Your task to perform on an android device: Do I have any events today? Image 0: 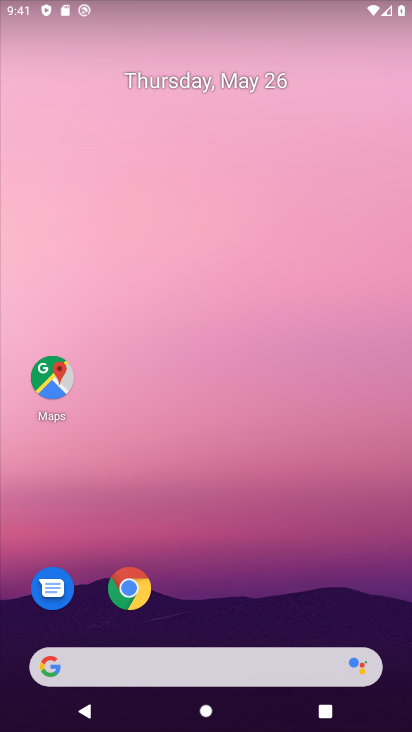
Step 0: drag from (238, 730) to (220, 22)
Your task to perform on an android device: Do I have any events today? Image 1: 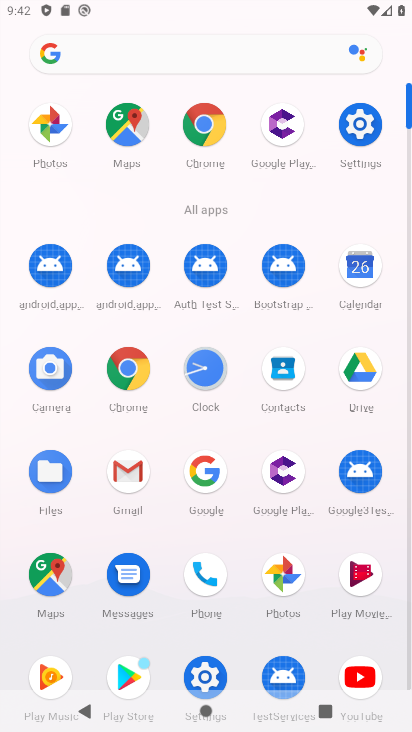
Step 1: click (357, 265)
Your task to perform on an android device: Do I have any events today? Image 2: 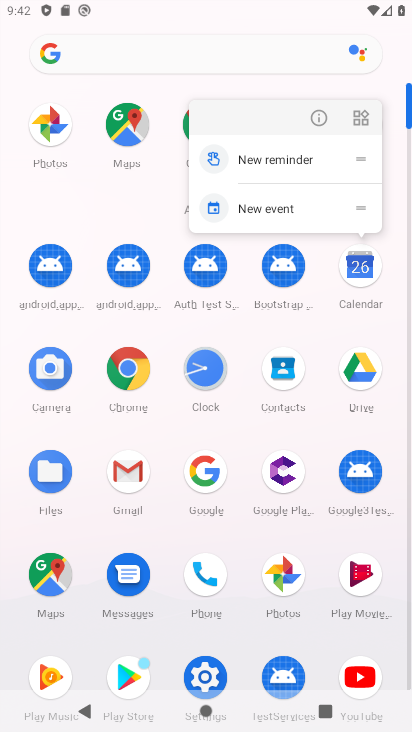
Step 2: click (359, 273)
Your task to perform on an android device: Do I have any events today? Image 3: 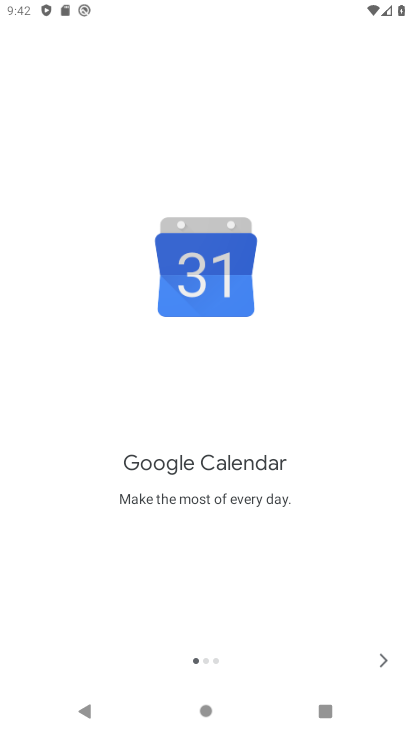
Step 3: click (382, 657)
Your task to perform on an android device: Do I have any events today? Image 4: 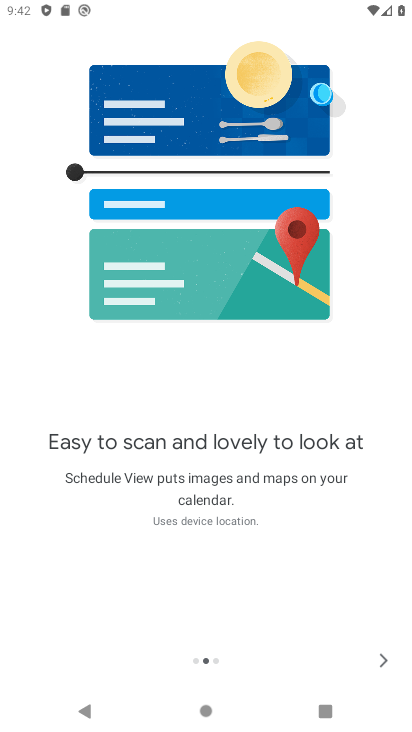
Step 4: click (383, 659)
Your task to perform on an android device: Do I have any events today? Image 5: 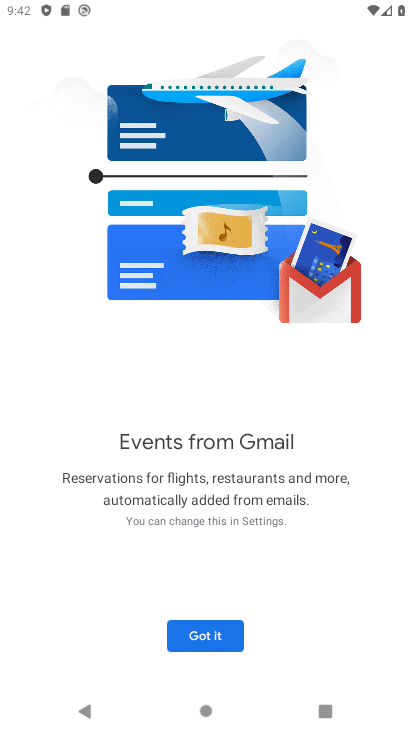
Step 5: click (205, 634)
Your task to perform on an android device: Do I have any events today? Image 6: 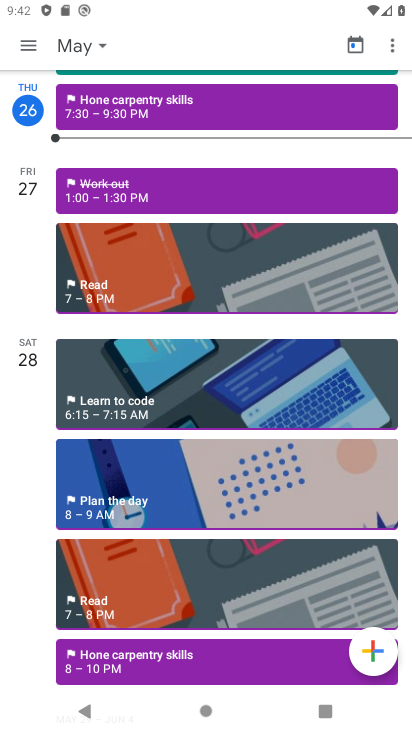
Step 6: click (35, 46)
Your task to perform on an android device: Do I have any events today? Image 7: 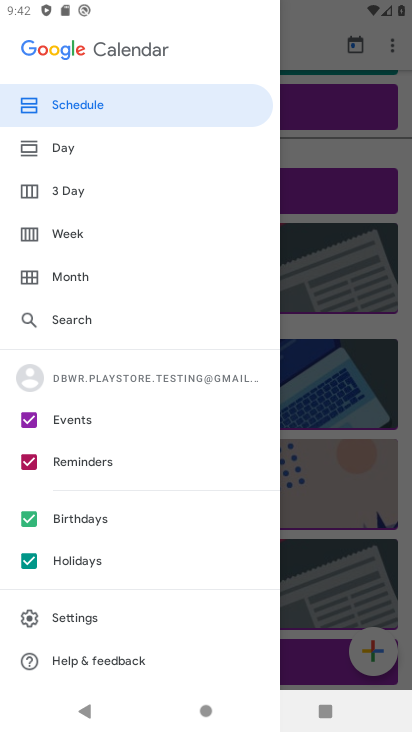
Step 7: click (24, 554)
Your task to perform on an android device: Do I have any events today? Image 8: 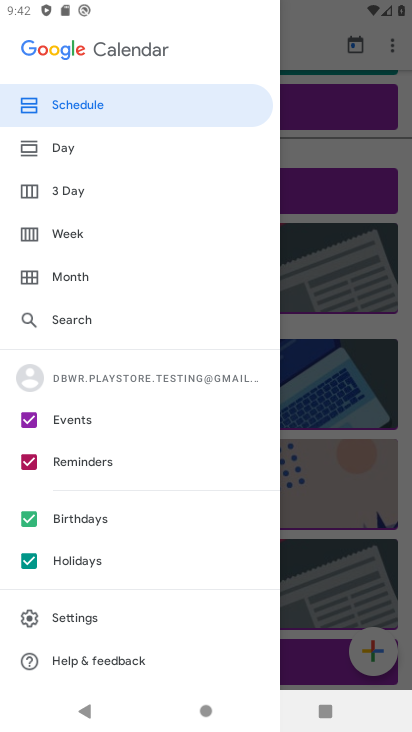
Step 8: click (35, 517)
Your task to perform on an android device: Do I have any events today? Image 9: 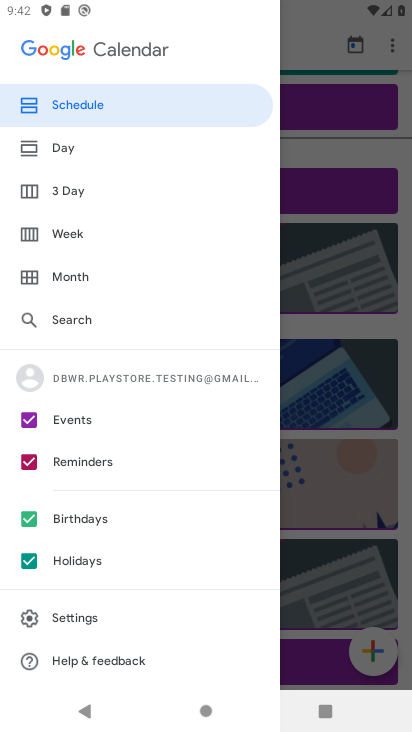
Step 9: click (29, 557)
Your task to perform on an android device: Do I have any events today? Image 10: 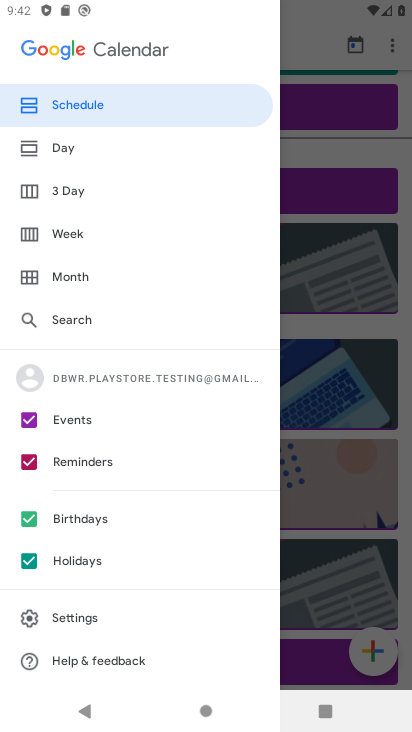
Step 10: click (28, 456)
Your task to perform on an android device: Do I have any events today? Image 11: 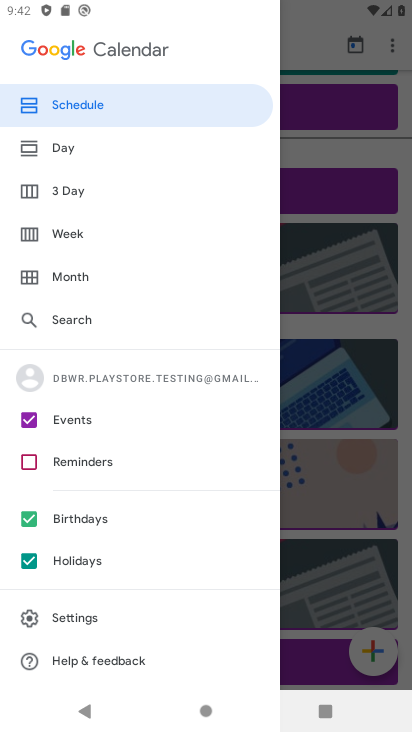
Step 11: click (27, 519)
Your task to perform on an android device: Do I have any events today? Image 12: 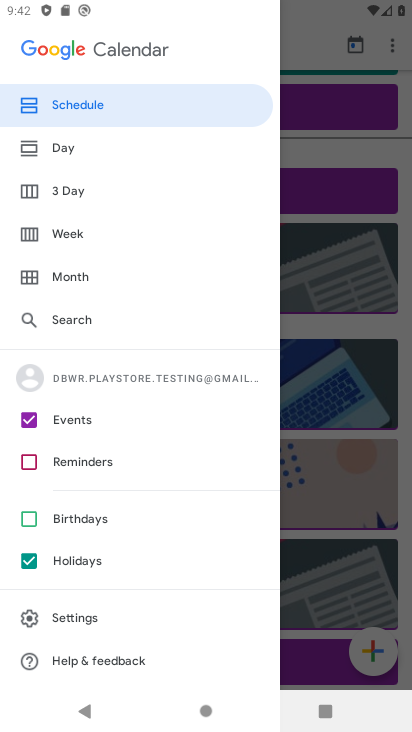
Step 12: click (28, 559)
Your task to perform on an android device: Do I have any events today? Image 13: 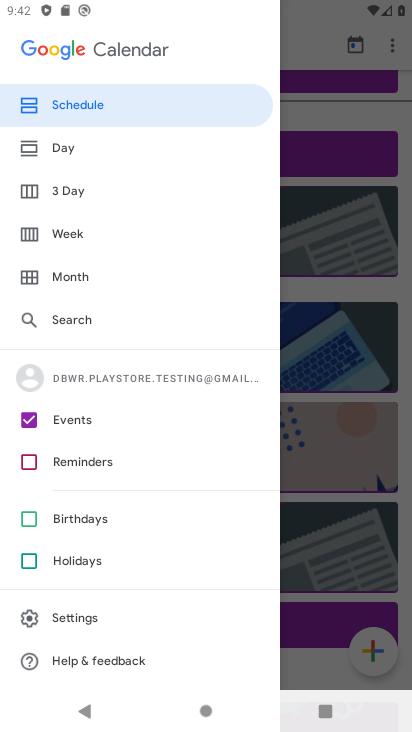
Step 13: click (121, 109)
Your task to perform on an android device: Do I have any events today? Image 14: 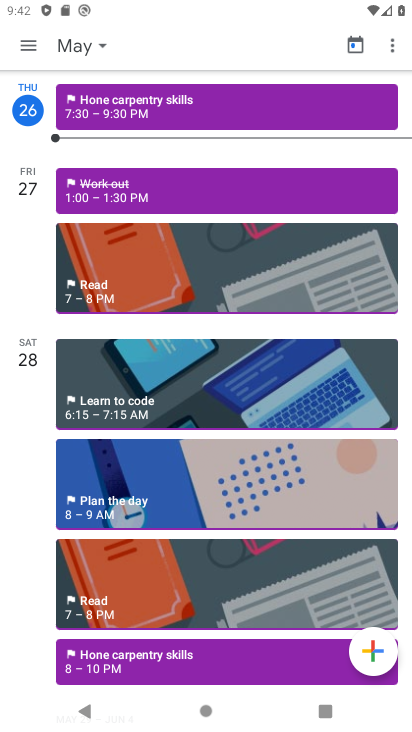
Step 14: task complete